Your task to perform on an android device: Open Youtube and go to "Your channel" Image 0: 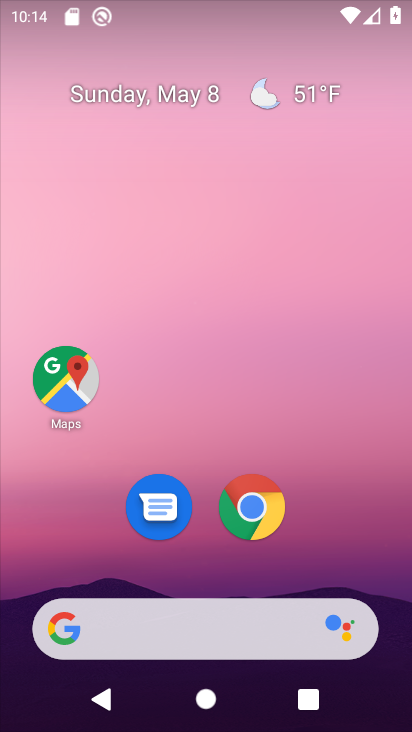
Step 0: drag from (207, 586) to (229, 2)
Your task to perform on an android device: Open Youtube and go to "Your channel" Image 1: 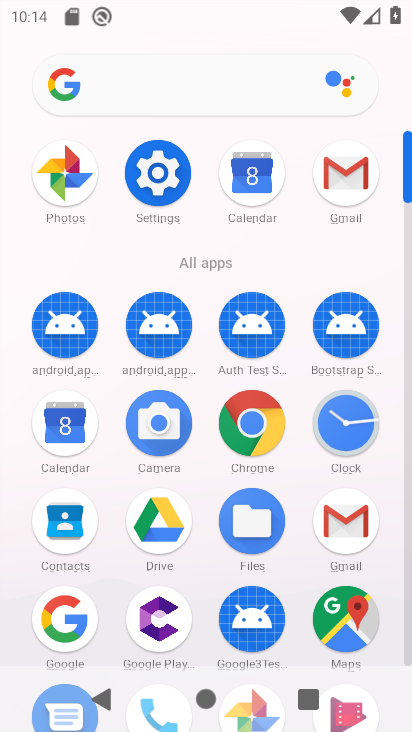
Step 1: drag from (299, 580) to (301, 114)
Your task to perform on an android device: Open Youtube and go to "Your channel" Image 2: 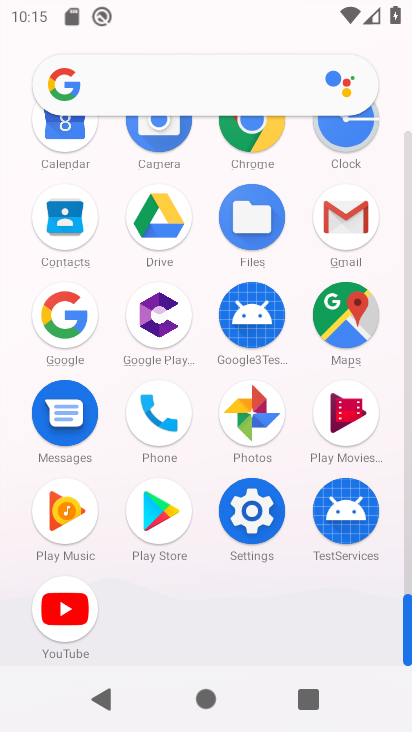
Step 2: click (60, 603)
Your task to perform on an android device: Open Youtube and go to "Your channel" Image 3: 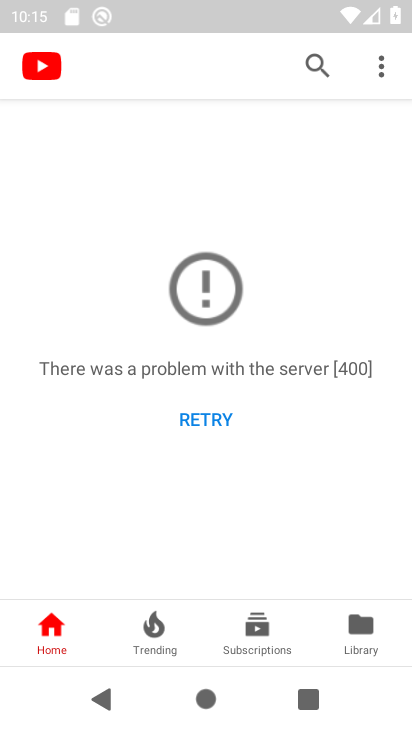
Step 3: click (376, 61)
Your task to perform on an android device: Open Youtube and go to "Your channel" Image 4: 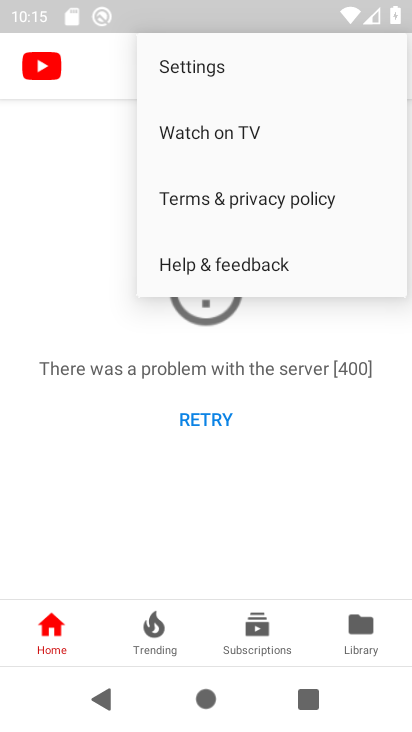
Step 4: click (233, 63)
Your task to perform on an android device: Open Youtube and go to "Your channel" Image 5: 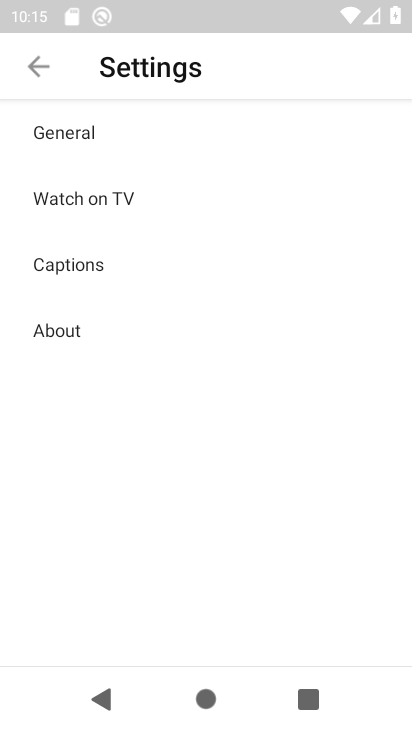
Step 5: press back button
Your task to perform on an android device: Open Youtube and go to "Your channel" Image 6: 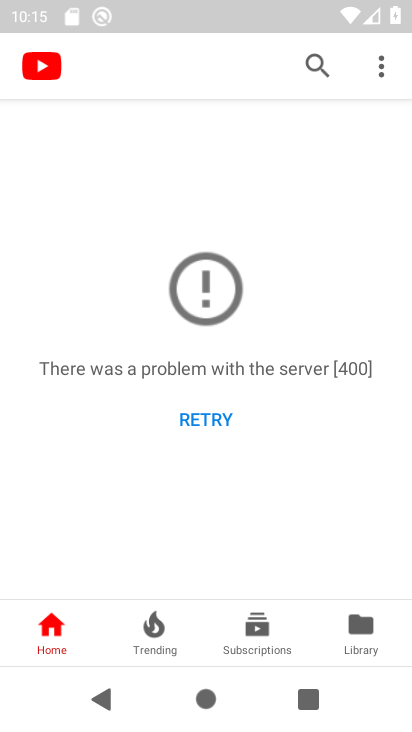
Step 6: click (369, 628)
Your task to perform on an android device: Open Youtube and go to "Your channel" Image 7: 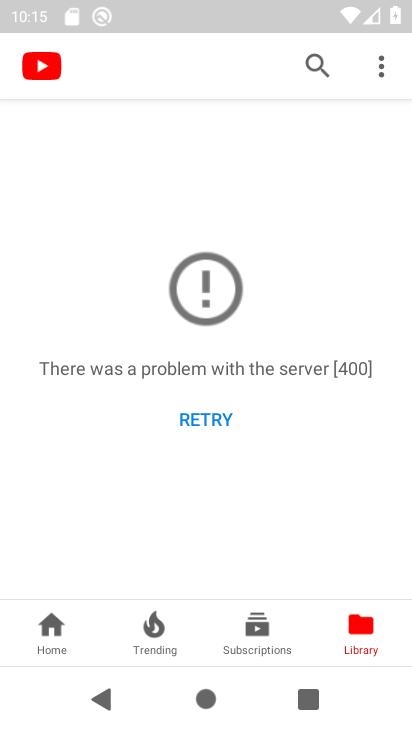
Step 7: task complete